Your task to perform on an android device: Go to display settings Image 0: 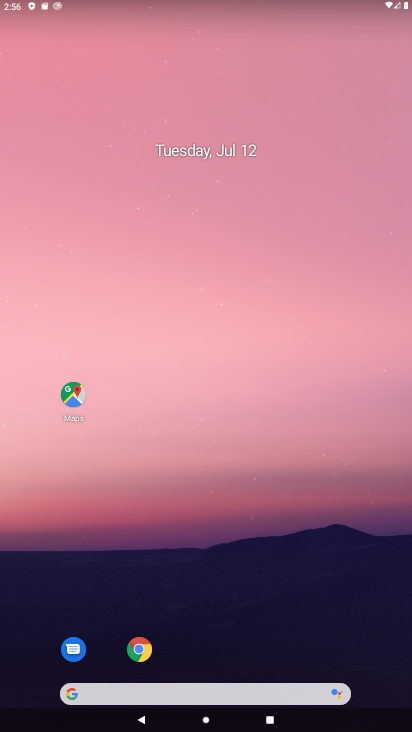
Step 0: drag from (186, 688) to (193, 218)
Your task to perform on an android device: Go to display settings Image 1: 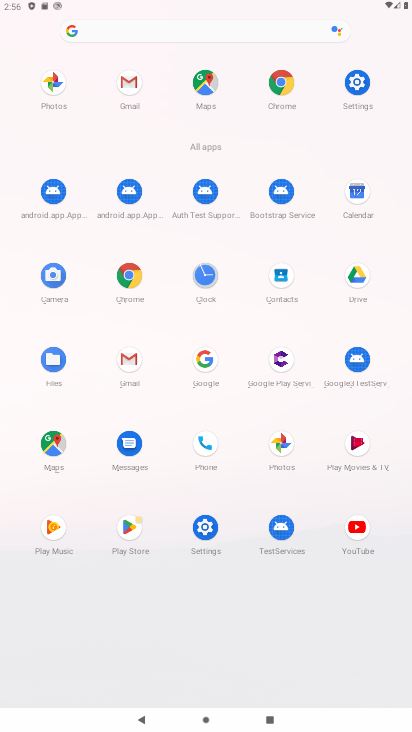
Step 1: click (358, 92)
Your task to perform on an android device: Go to display settings Image 2: 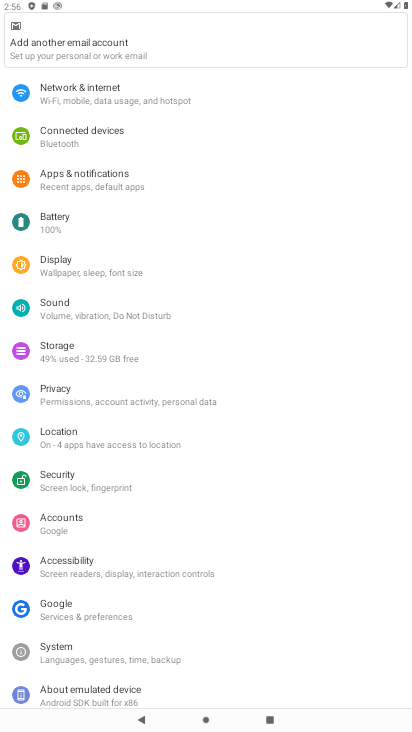
Step 2: click (65, 271)
Your task to perform on an android device: Go to display settings Image 3: 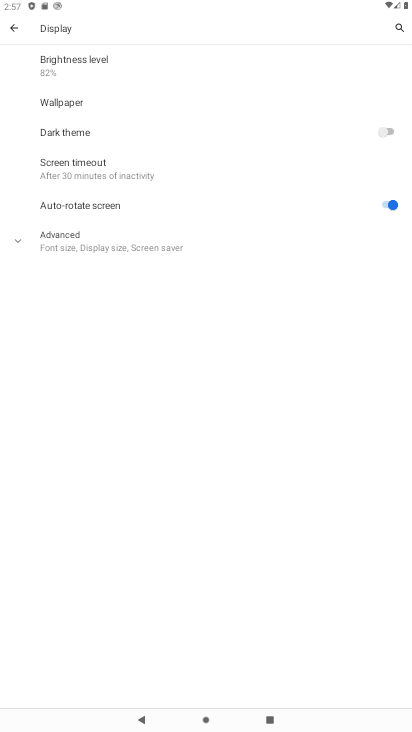
Step 3: task complete